Your task to perform on an android device: Open Youtube and go to "Your channel" Image 0: 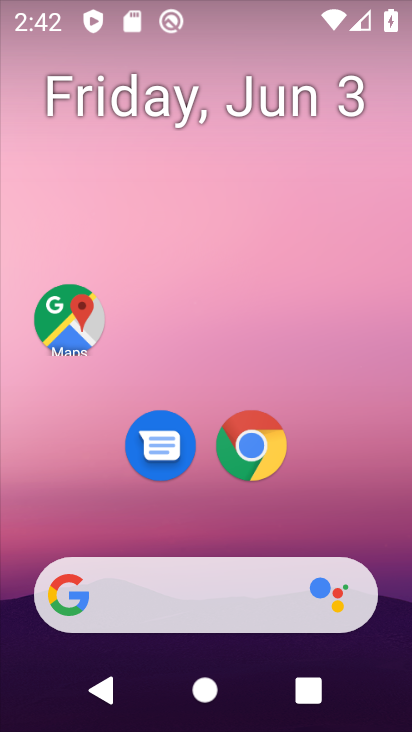
Step 0: drag from (103, 590) to (225, 94)
Your task to perform on an android device: Open Youtube and go to "Your channel" Image 1: 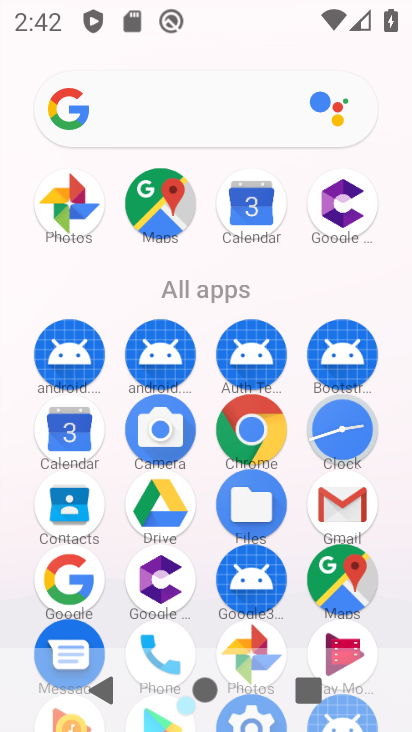
Step 1: drag from (134, 596) to (174, 390)
Your task to perform on an android device: Open Youtube and go to "Your channel" Image 2: 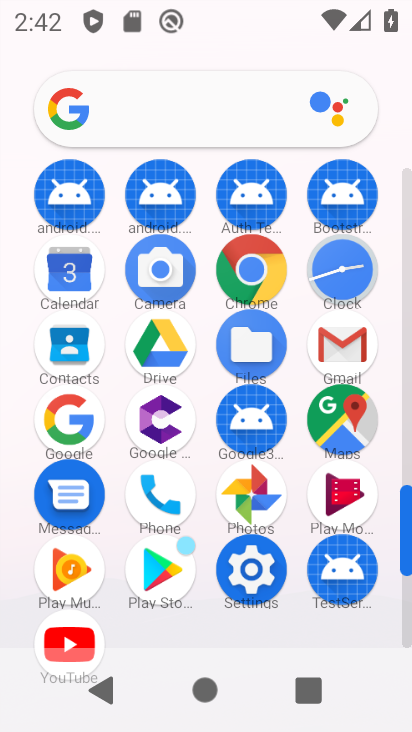
Step 2: click (82, 629)
Your task to perform on an android device: Open Youtube and go to "Your channel" Image 3: 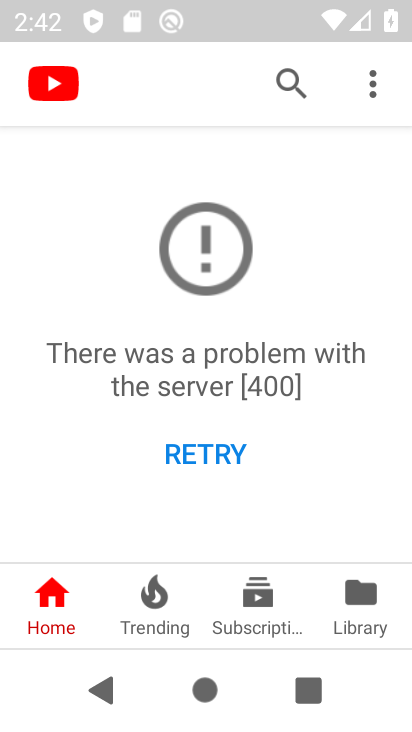
Step 3: click (325, 601)
Your task to perform on an android device: Open Youtube and go to "Your channel" Image 4: 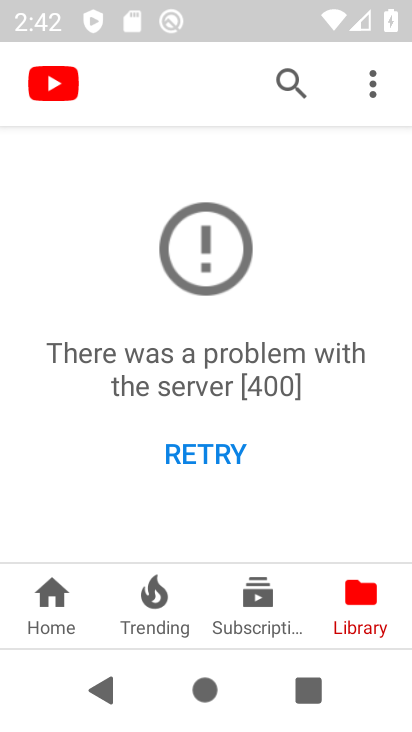
Step 4: task complete